Your task to perform on an android device: turn notification dots on Image 0: 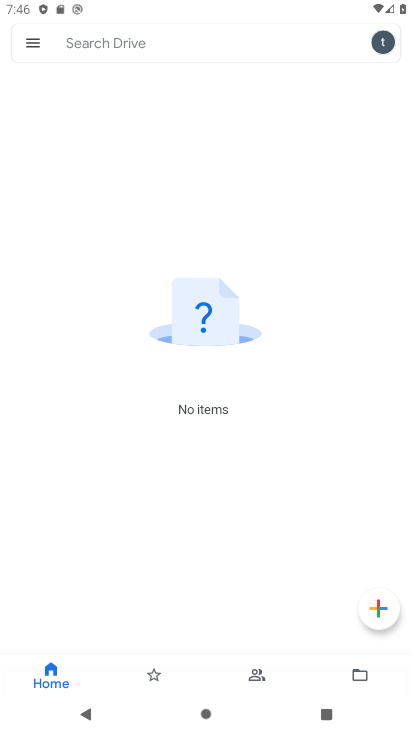
Step 0: press home button
Your task to perform on an android device: turn notification dots on Image 1: 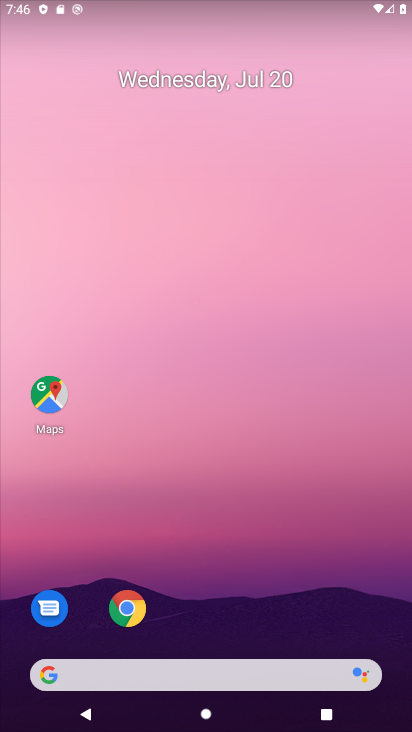
Step 1: drag from (217, 608) to (209, 39)
Your task to perform on an android device: turn notification dots on Image 2: 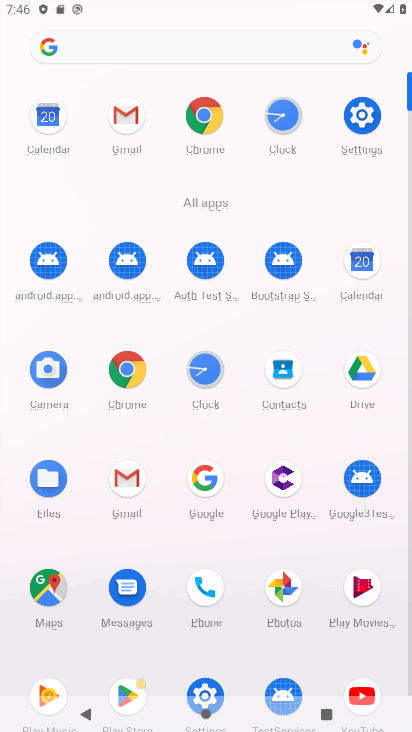
Step 2: click (370, 129)
Your task to perform on an android device: turn notification dots on Image 3: 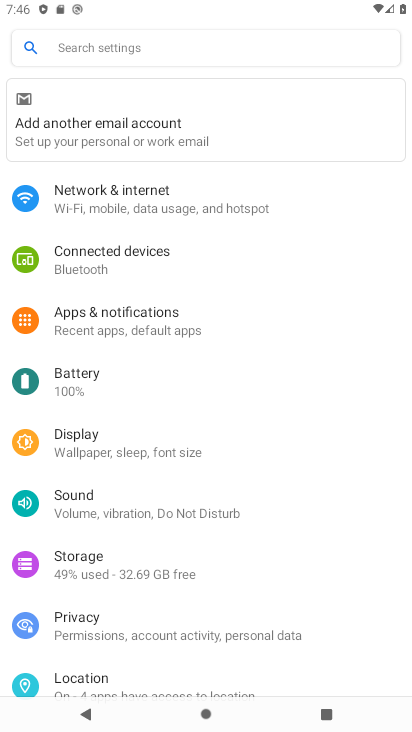
Step 3: click (182, 327)
Your task to perform on an android device: turn notification dots on Image 4: 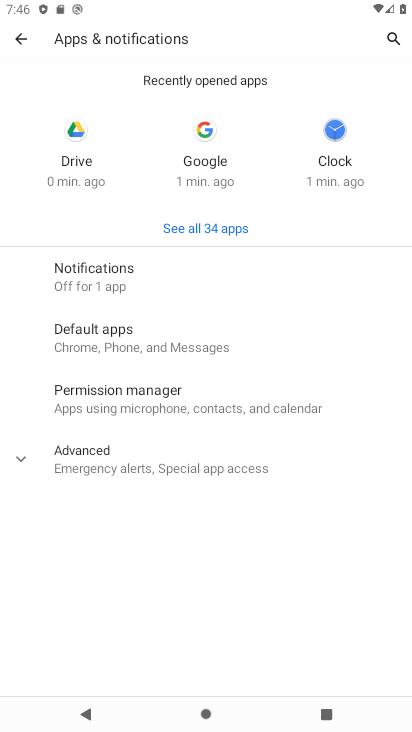
Step 4: click (119, 272)
Your task to perform on an android device: turn notification dots on Image 5: 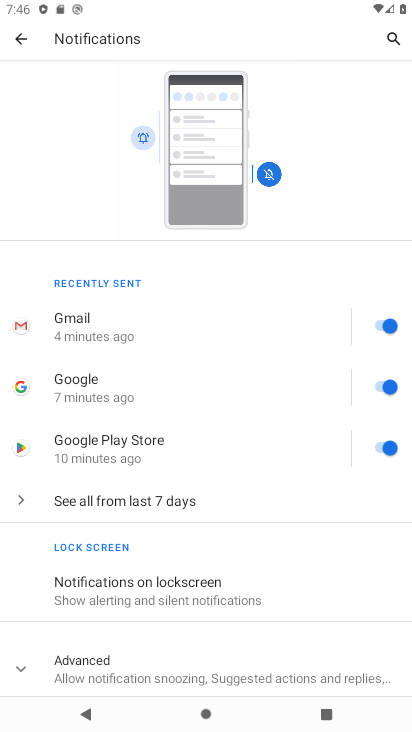
Step 5: click (154, 669)
Your task to perform on an android device: turn notification dots on Image 6: 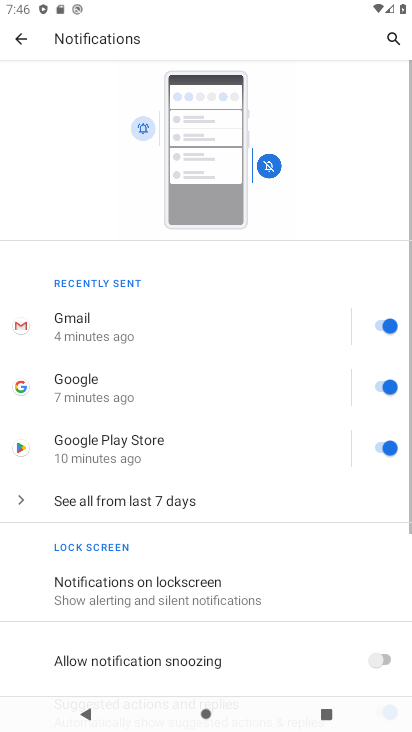
Step 6: task complete